Your task to perform on an android device: remove spam from my inbox in the gmail app Image 0: 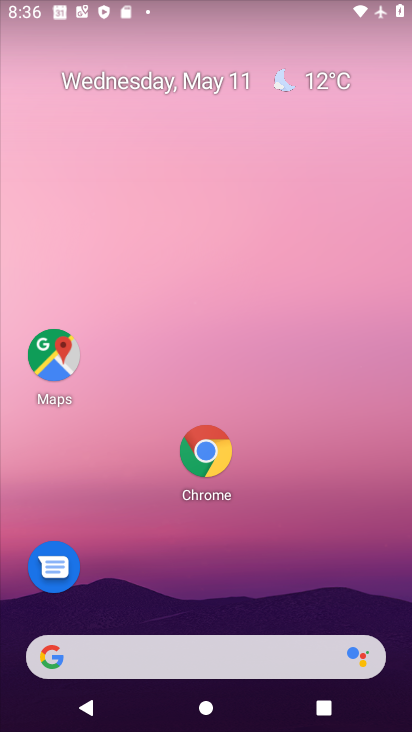
Step 0: drag from (213, 663) to (335, 381)
Your task to perform on an android device: remove spam from my inbox in the gmail app Image 1: 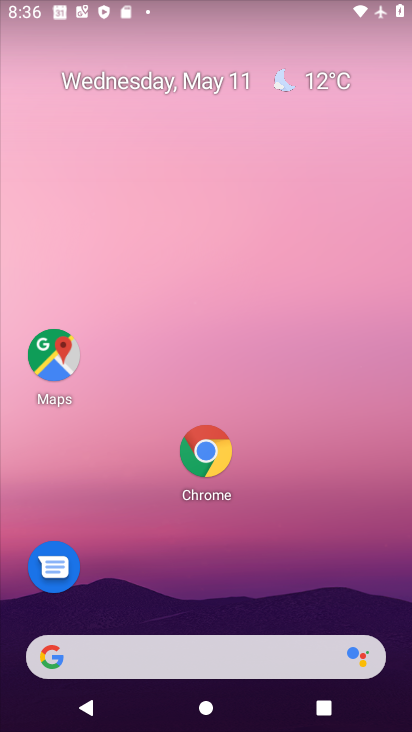
Step 1: drag from (249, 661) to (328, 220)
Your task to perform on an android device: remove spam from my inbox in the gmail app Image 2: 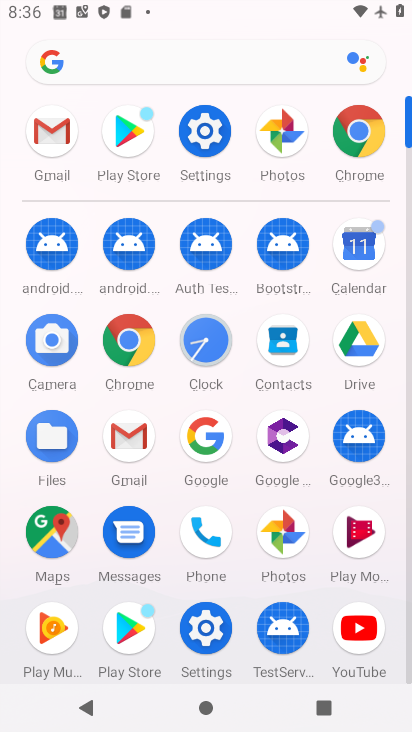
Step 2: click (135, 433)
Your task to perform on an android device: remove spam from my inbox in the gmail app Image 3: 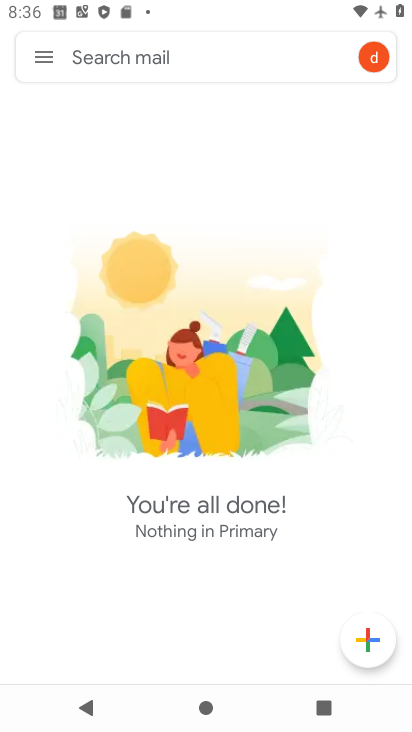
Step 3: click (48, 50)
Your task to perform on an android device: remove spam from my inbox in the gmail app Image 4: 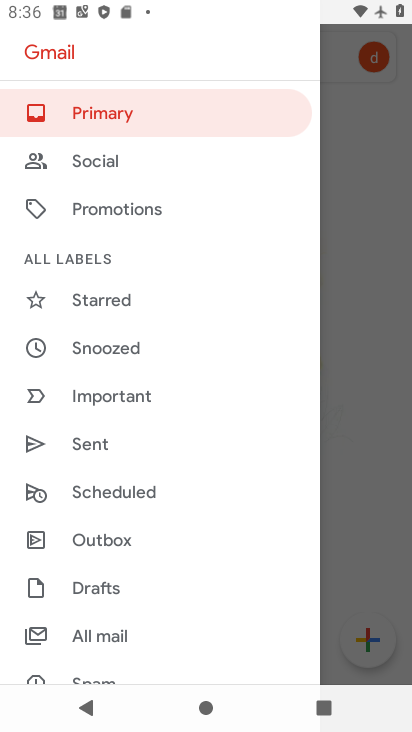
Step 4: drag from (139, 617) to (173, 270)
Your task to perform on an android device: remove spam from my inbox in the gmail app Image 5: 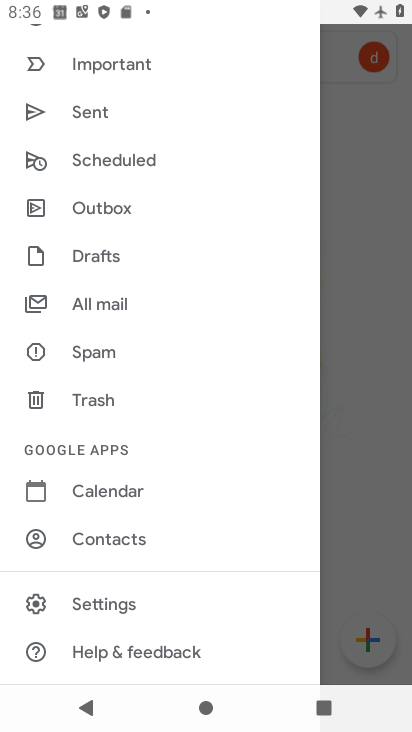
Step 5: click (86, 349)
Your task to perform on an android device: remove spam from my inbox in the gmail app Image 6: 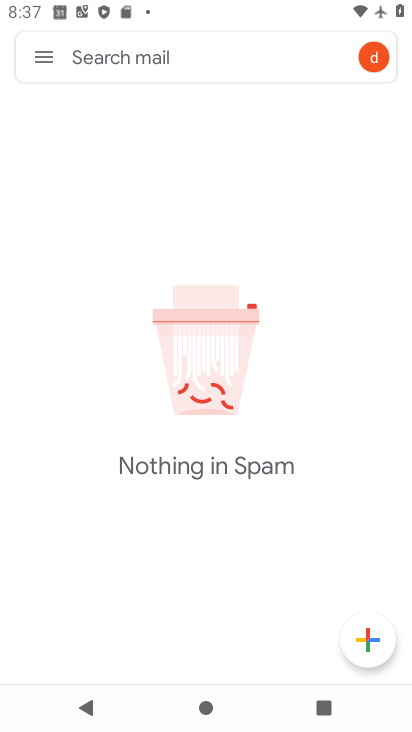
Step 6: task complete